Your task to perform on an android device: turn on notifications settings in the gmail app Image 0: 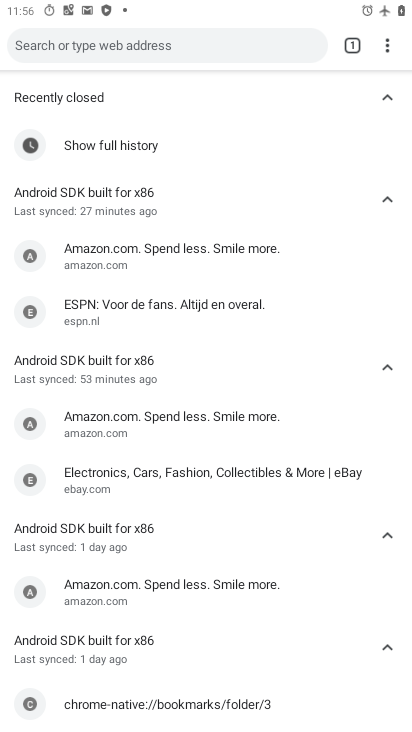
Step 0: press home button
Your task to perform on an android device: turn on notifications settings in the gmail app Image 1: 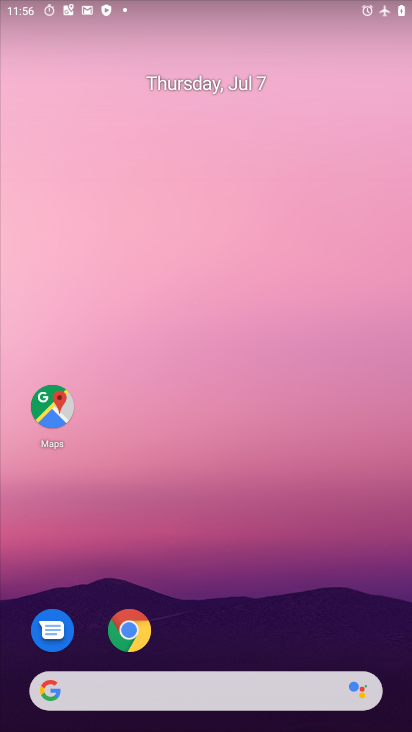
Step 1: drag from (208, 631) to (218, 242)
Your task to perform on an android device: turn on notifications settings in the gmail app Image 2: 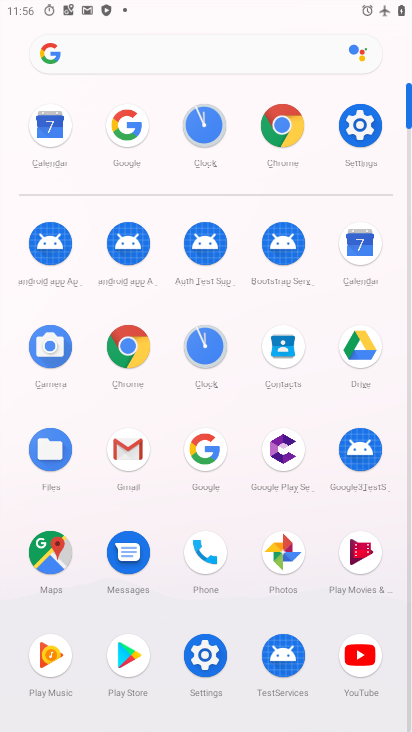
Step 2: click (129, 453)
Your task to perform on an android device: turn on notifications settings in the gmail app Image 3: 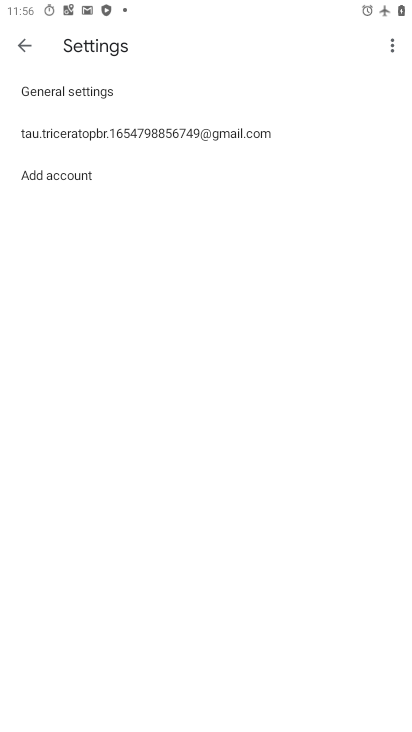
Step 3: click (145, 124)
Your task to perform on an android device: turn on notifications settings in the gmail app Image 4: 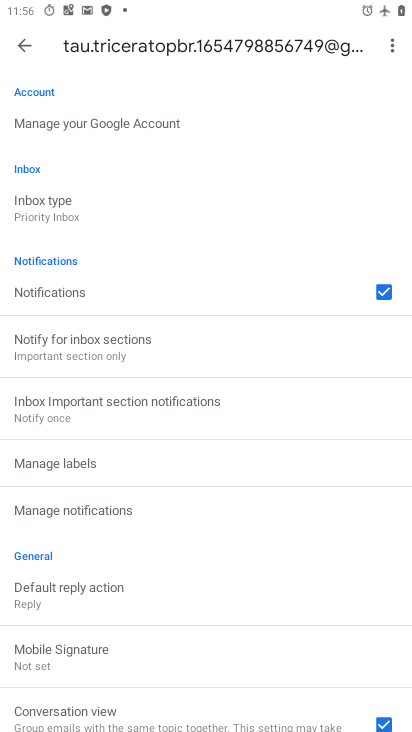
Step 4: click (102, 515)
Your task to perform on an android device: turn on notifications settings in the gmail app Image 5: 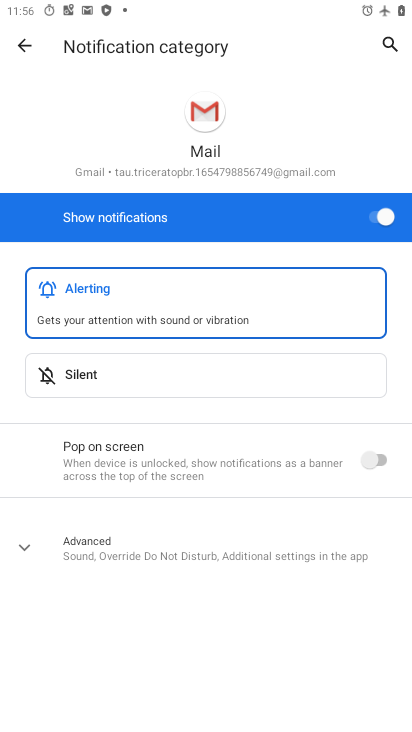
Step 5: click (181, 547)
Your task to perform on an android device: turn on notifications settings in the gmail app Image 6: 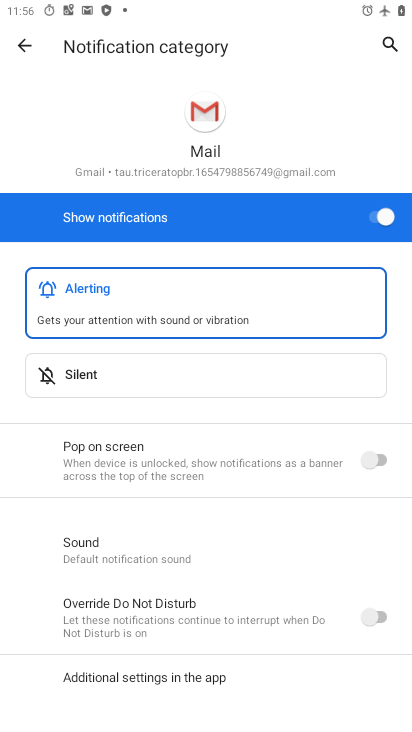
Step 6: task complete